Your task to perform on an android device: Open wifi settings Image 0: 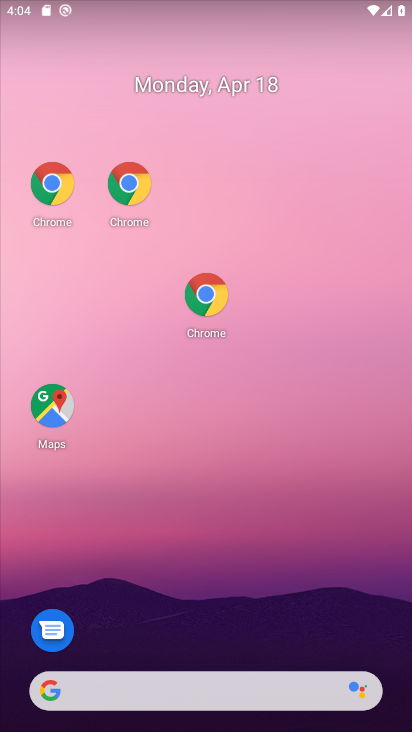
Step 0: click (408, 630)
Your task to perform on an android device: Open wifi settings Image 1: 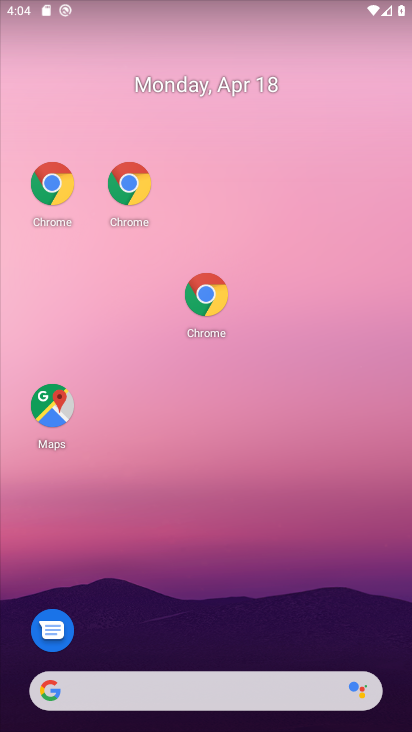
Step 1: drag from (305, 504) to (192, 307)
Your task to perform on an android device: Open wifi settings Image 2: 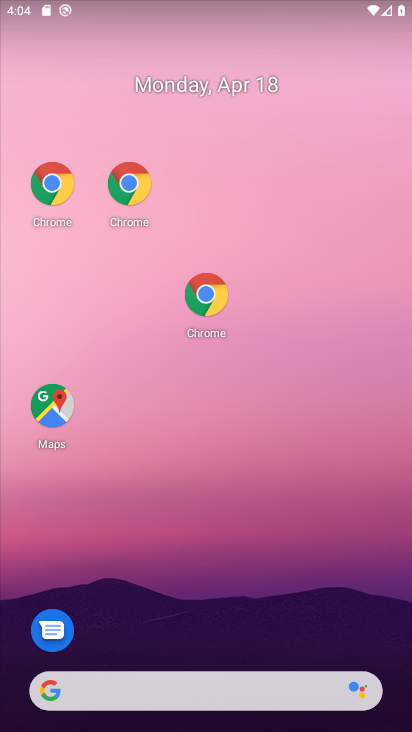
Step 2: drag from (320, 557) to (103, 145)
Your task to perform on an android device: Open wifi settings Image 3: 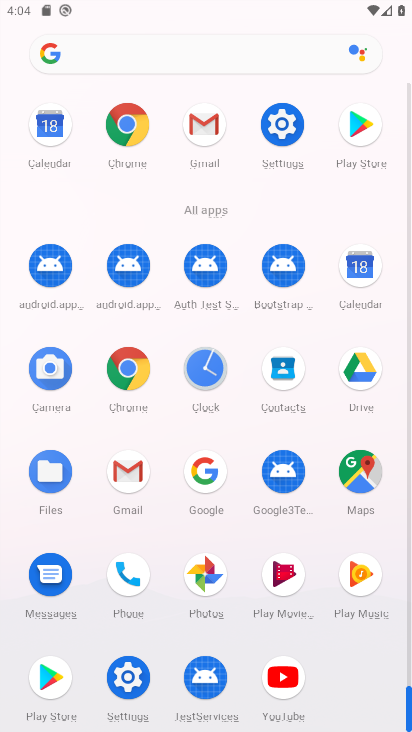
Step 3: click (280, 126)
Your task to perform on an android device: Open wifi settings Image 4: 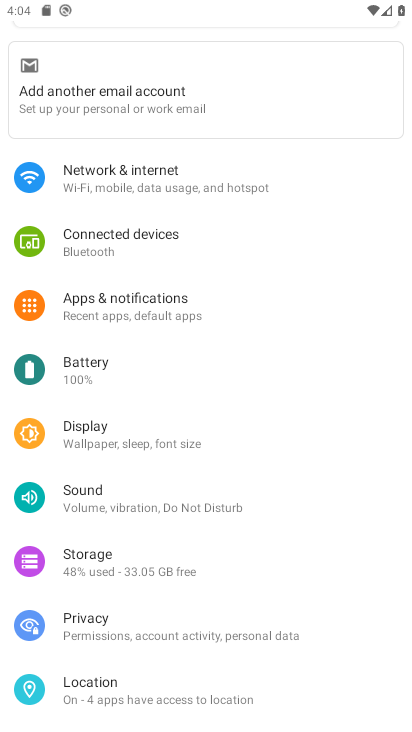
Step 4: click (119, 184)
Your task to perform on an android device: Open wifi settings Image 5: 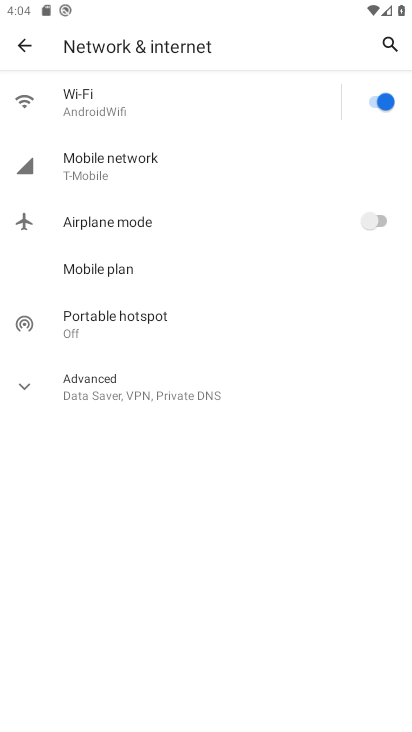
Step 5: click (380, 103)
Your task to perform on an android device: Open wifi settings Image 6: 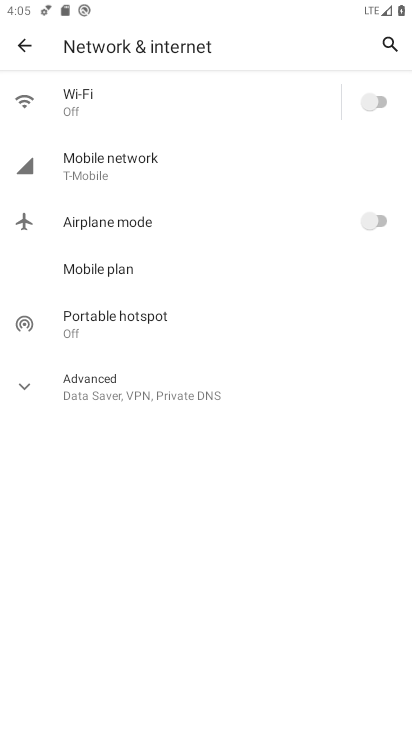
Step 6: click (366, 107)
Your task to perform on an android device: Open wifi settings Image 7: 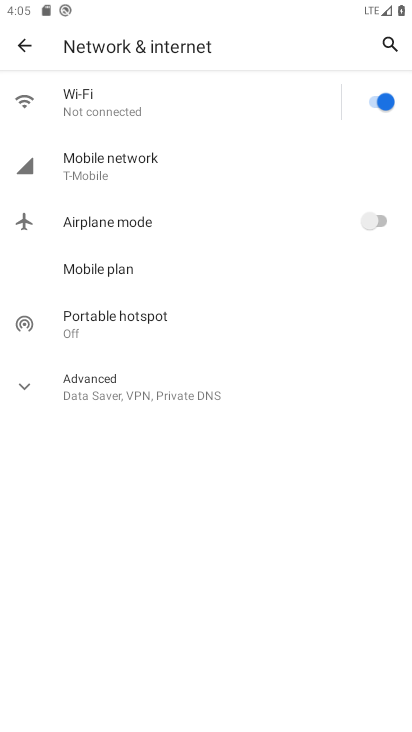
Step 7: task complete